Your task to perform on an android device: Open settings Image 0: 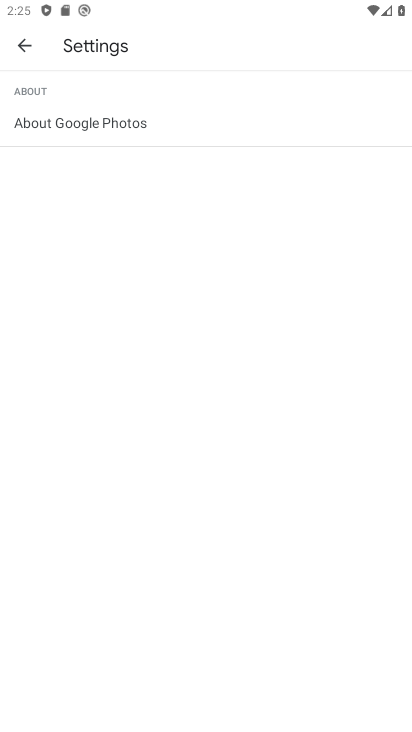
Step 0: press home button
Your task to perform on an android device: Open settings Image 1: 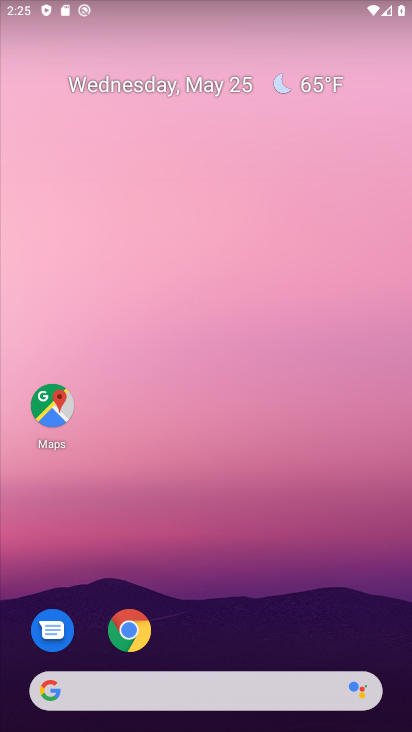
Step 1: drag from (211, 651) to (259, 107)
Your task to perform on an android device: Open settings Image 2: 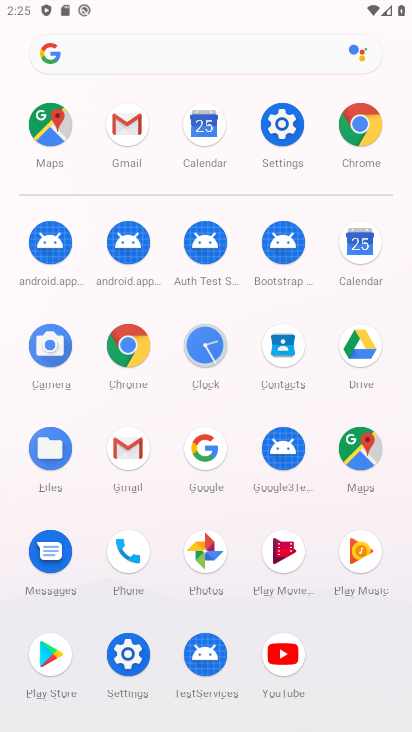
Step 2: click (281, 120)
Your task to perform on an android device: Open settings Image 3: 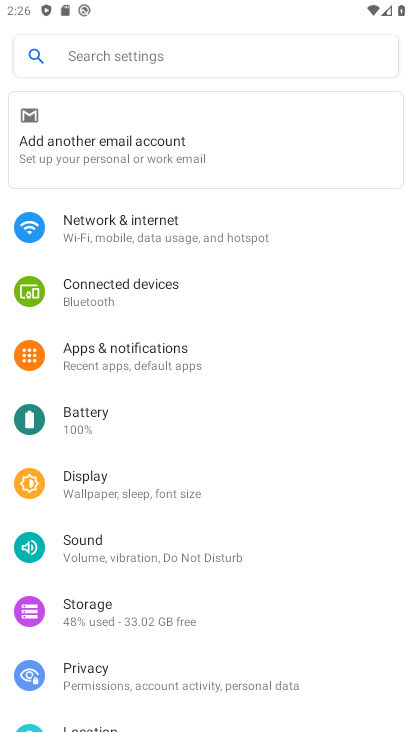
Step 3: task complete